Your task to perform on an android device: Do I have any events this weekend? Image 0: 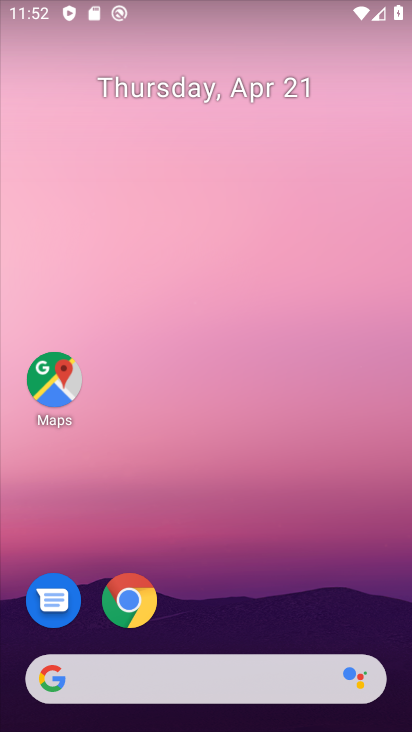
Step 0: drag from (385, 532) to (398, 275)
Your task to perform on an android device: Do I have any events this weekend? Image 1: 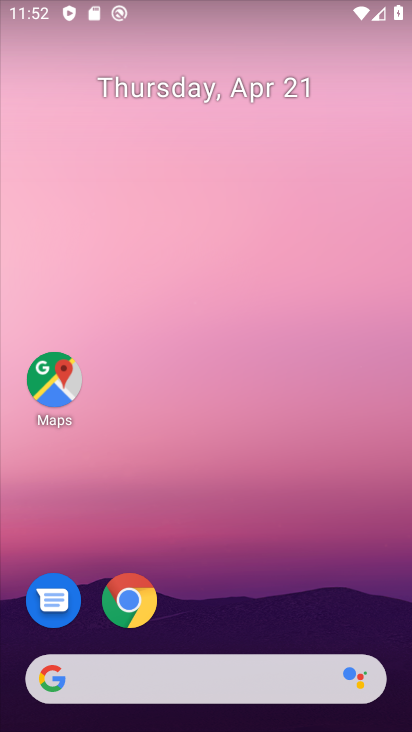
Step 1: click (352, 113)
Your task to perform on an android device: Do I have any events this weekend? Image 2: 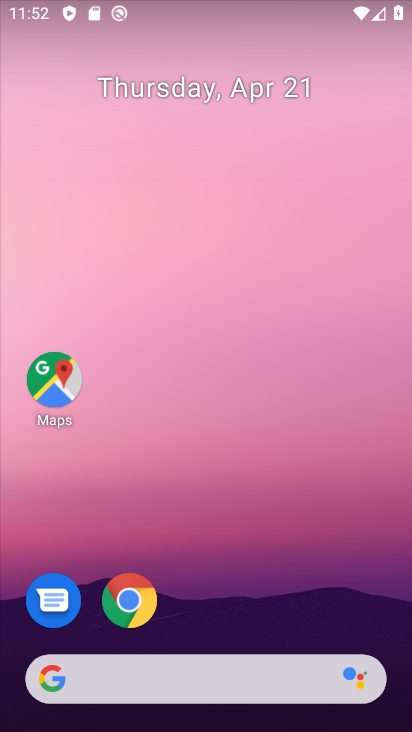
Step 2: drag from (396, 469) to (404, 205)
Your task to perform on an android device: Do I have any events this weekend? Image 3: 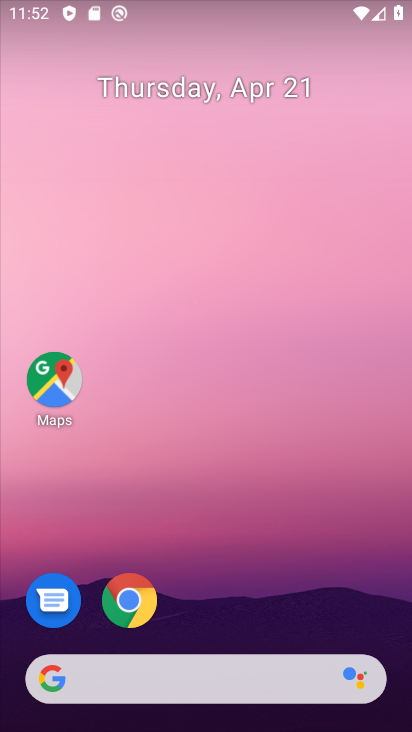
Step 3: drag from (395, 541) to (382, 219)
Your task to perform on an android device: Do I have any events this weekend? Image 4: 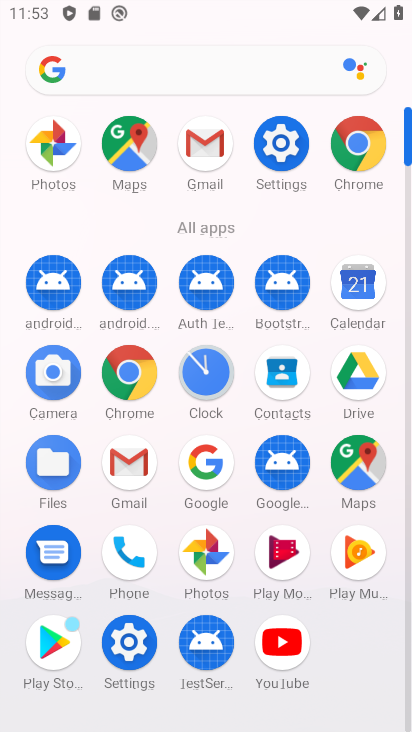
Step 4: click (362, 291)
Your task to perform on an android device: Do I have any events this weekend? Image 5: 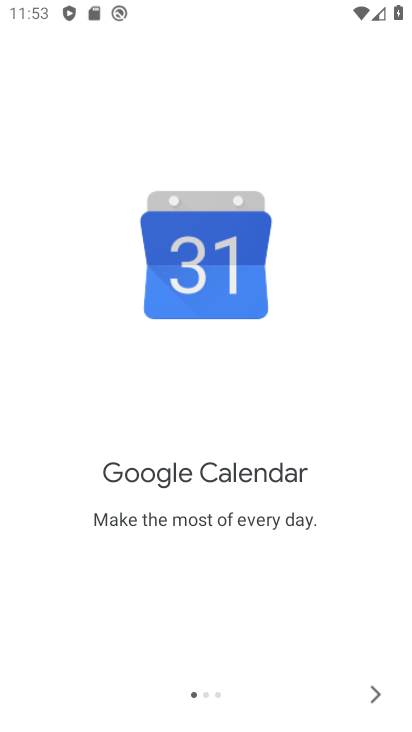
Step 5: click (366, 695)
Your task to perform on an android device: Do I have any events this weekend? Image 6: 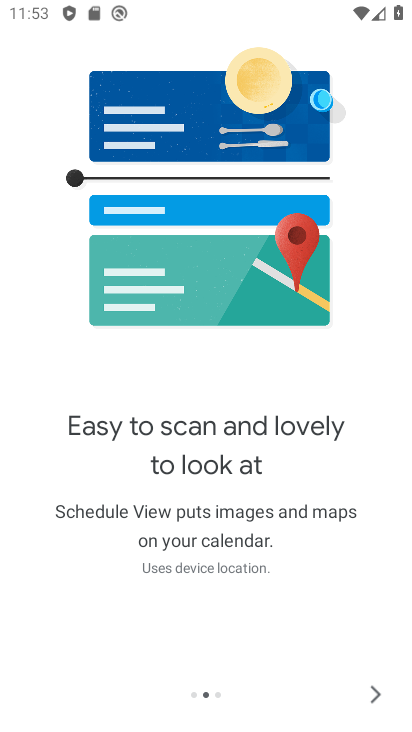
Step 6: click (366, 695)
Your task to perform on an android device: Do I have any events this weekend? Image 7: 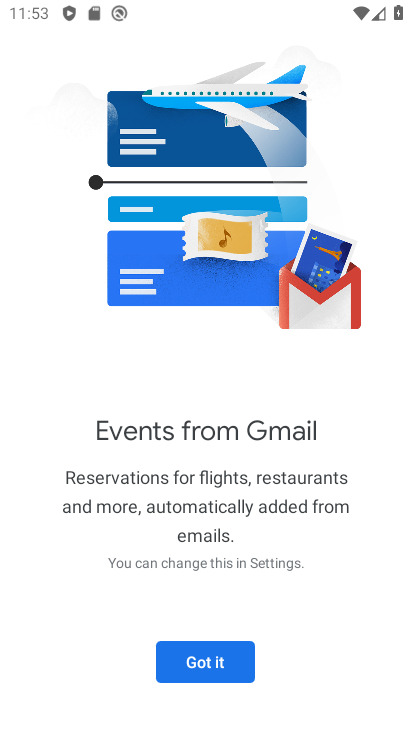
Step 7: click (232, 672)
Your task to perform on an android device: Do I have any events this weekend? Image 8: 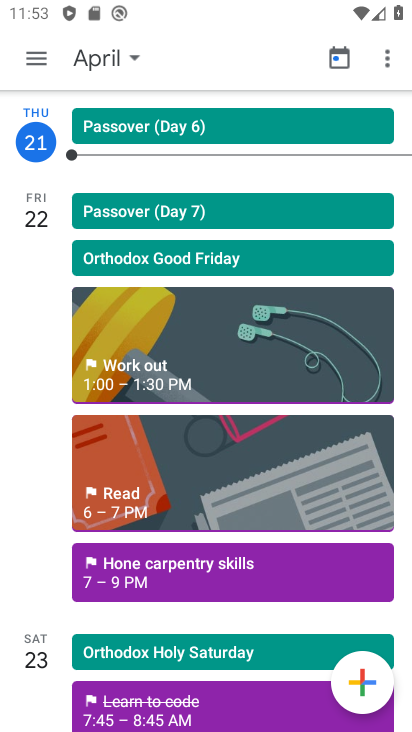
Step 8: click (131, 58)
Your task to perform on an android device: Do I have any events this weekend? Image 9: 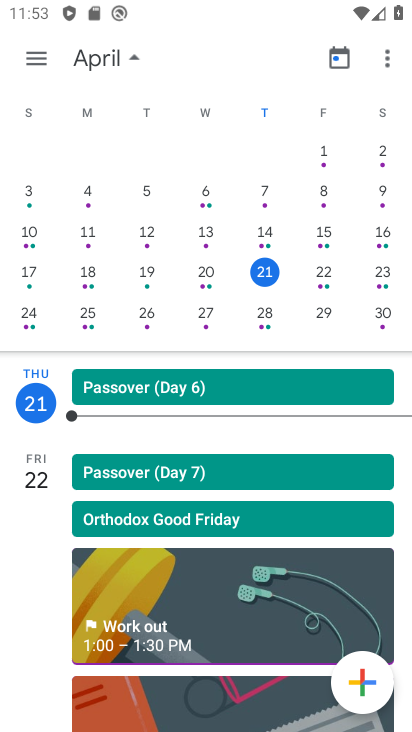
Step 9: click (257, 268)
Your task to perform on an android device: Do I have any events this weekend? Image 10: 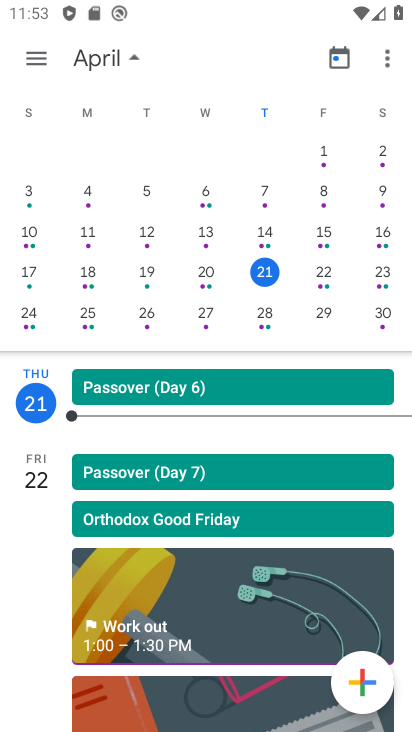
Step 10: click (39, 60)
Your task to perform on an android device: Do I have any events this weekend? Image 11: 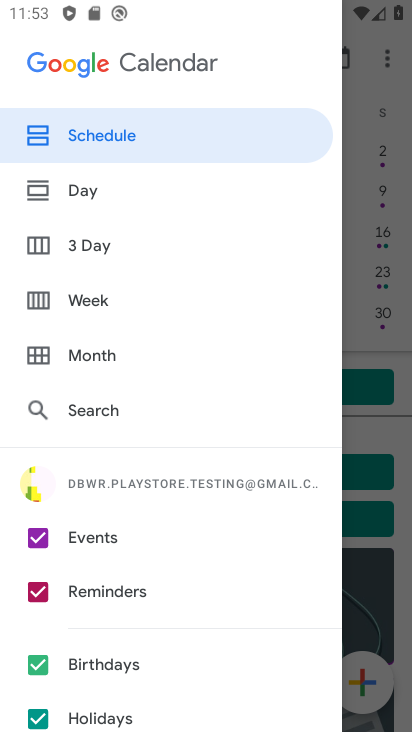
Step 11: click (69, 294)
Your task to perform on an android device: Do I have any events this weekend? Image 12: 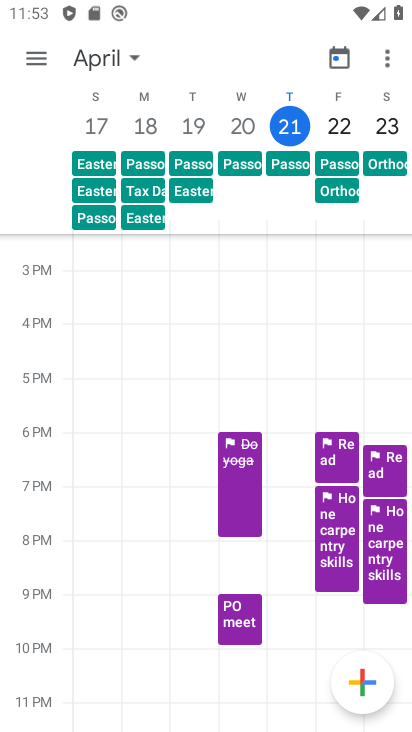
Step 12: task complete